Your task to perform on an android device: Go to location settings Image 0: 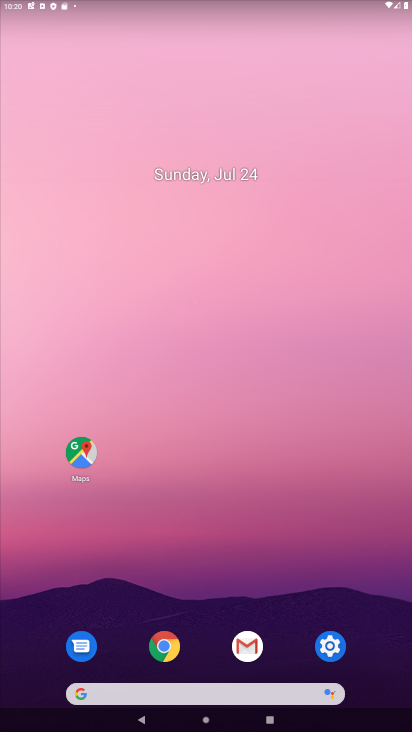
Step 0: click (321, 658)
Your task to perform on an android device: Go to location settings Image 1: 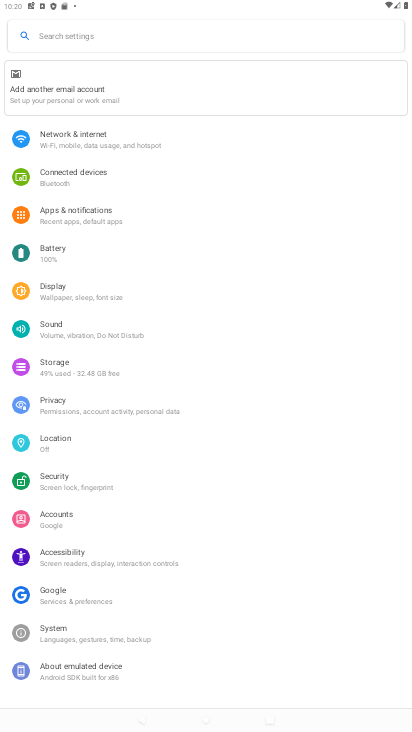
Step 1: click (92, 450)
Your task to perform on an android device: Go to location settings Image 2: 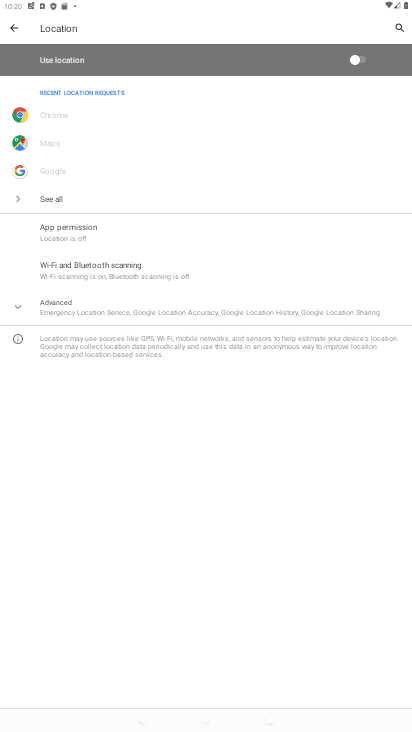
Step 2: click (366, 58)
Your task to perform on an android device: Go to location settings Image 3: 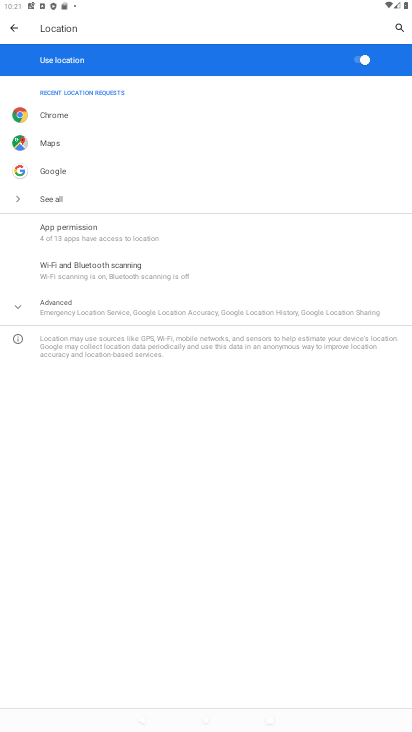
Step 3: task complete